Your task to perform on an android device: open device folders in google photos Image 0: 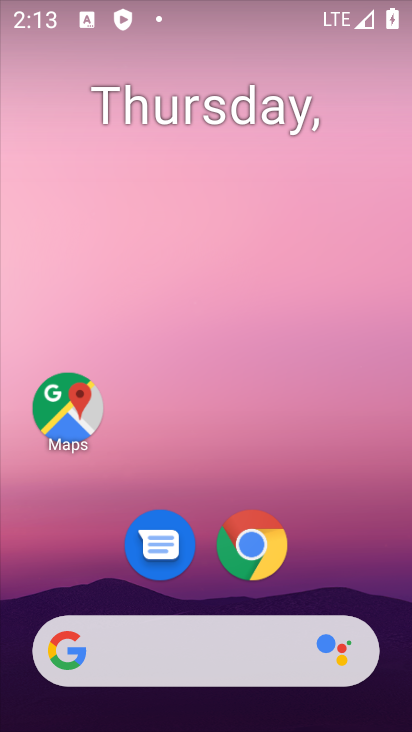
Step 0: drag from (309, 580) to (324, 0)
Your task to perform on an android device: open device folders in google photos Image 1: 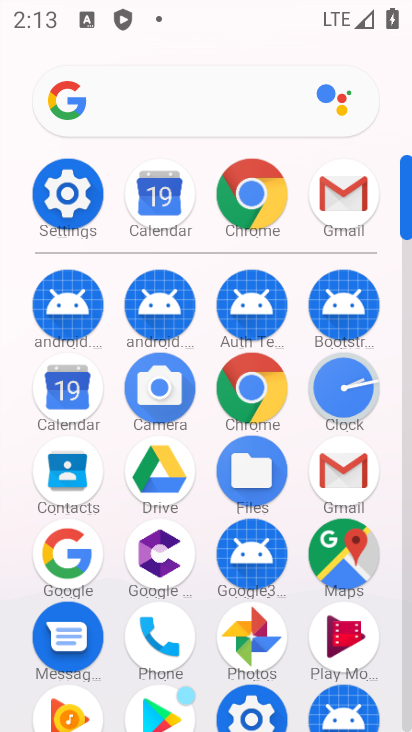
Step 1: click (257, 636)
Your task to perform on an android device: open device folders in google photos Image 2: 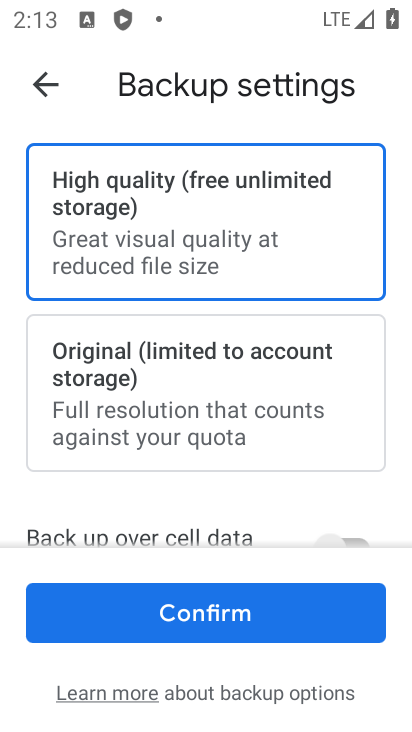
Step 2: press back button
Your task to perform on an android device: open device folders in google photos Image 3: 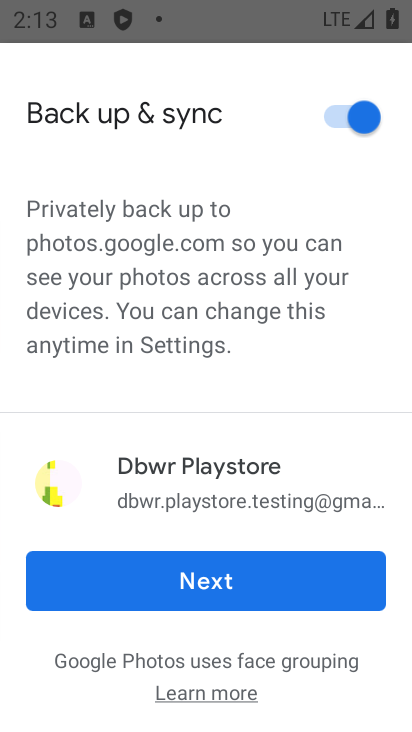
Step 3: click (277, 592)
Your task to perform on an android device: open device folders in google photos Image 4: 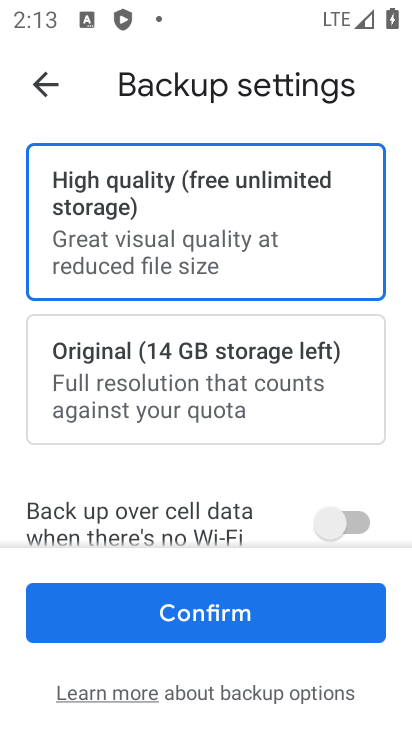
Step 4: click (267, 607)
Your task to perform on an android device: open device folders in google photos Image 5: 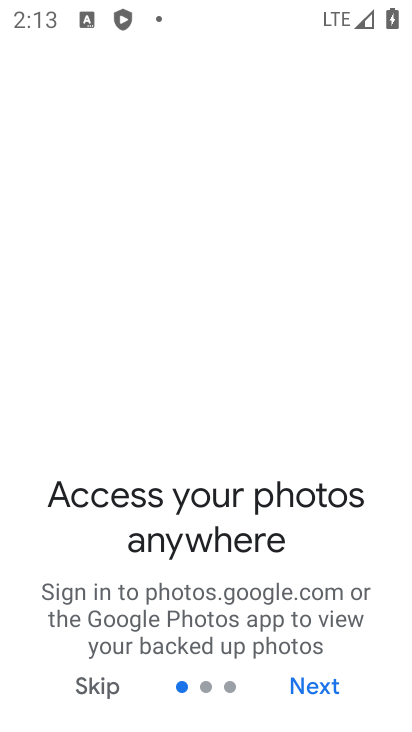
Step 5: click (311, 684)
Your task to perform on an android device: open device folders in google photos Image 6: 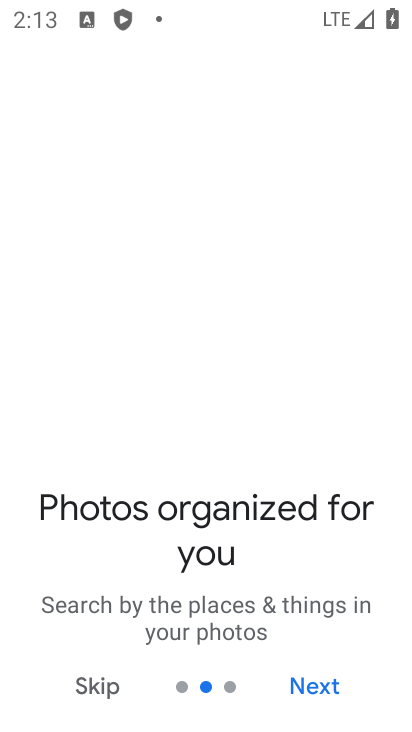
Step 6: click (312, 684)
Your task to perform on an android device: open device folders in google photos Image 7: 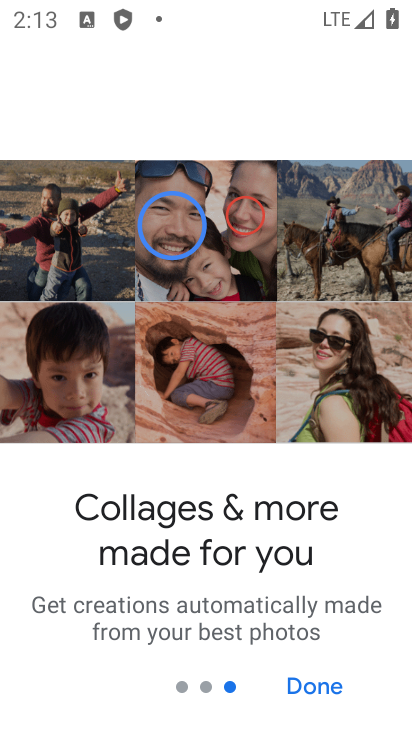
Step 7: click (312, 684)
Your task to perform on an android device: open device folders in google photos Image 8: 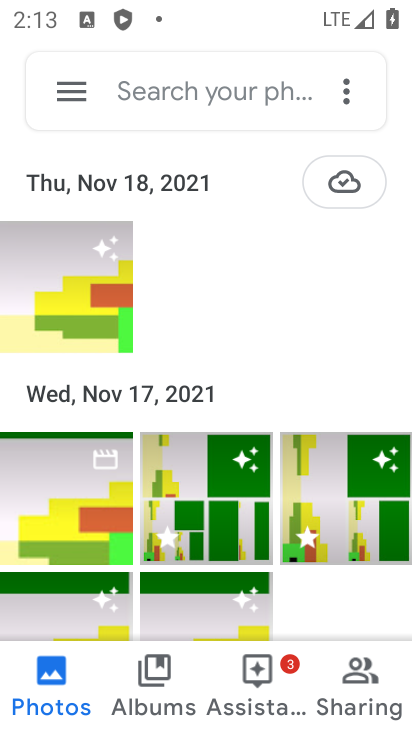
Step 8: click (62, 97)
Your task to perform on an android device: open device folders in google photos Image 9: 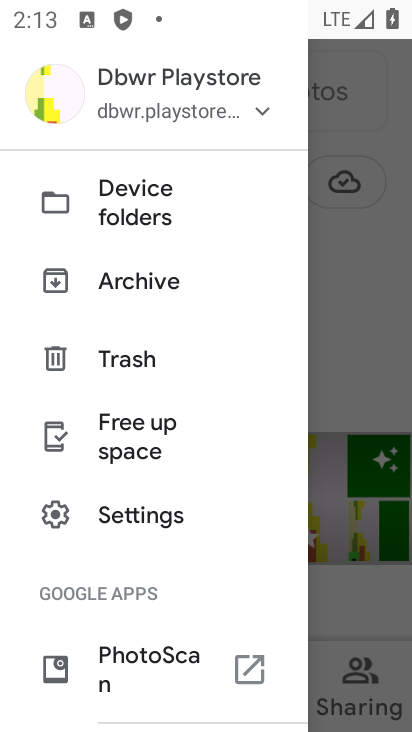
Step 9: click (156, 193)
Your task to perform on an android device: open device folders in google photos Image 10: 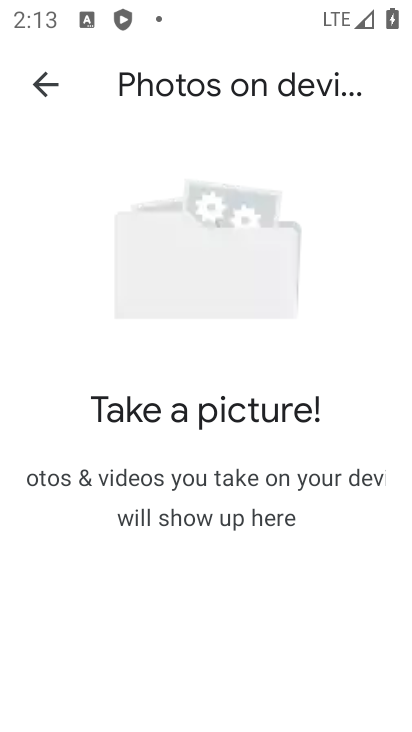
Step 10: task complete